Your task to perform on an android device: Open calendar and show me the second week of next month Image 0: 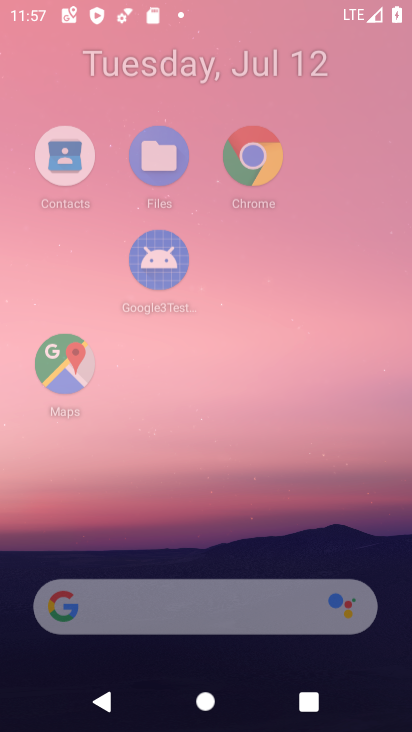
Step 0: drag from (236, 586) to (31, 158)
Your task to perform on an android device: Open calendar and show me the second week of next month Image 1: 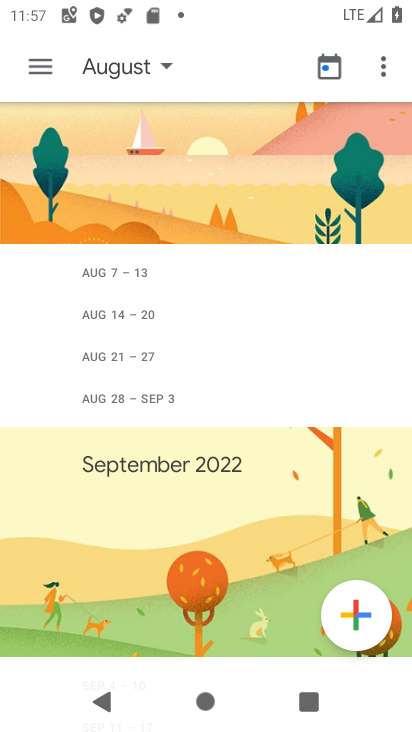
Step 1: press home button
Your task to perform on an android device: Open calendar and show me the second week of next month Image 2: 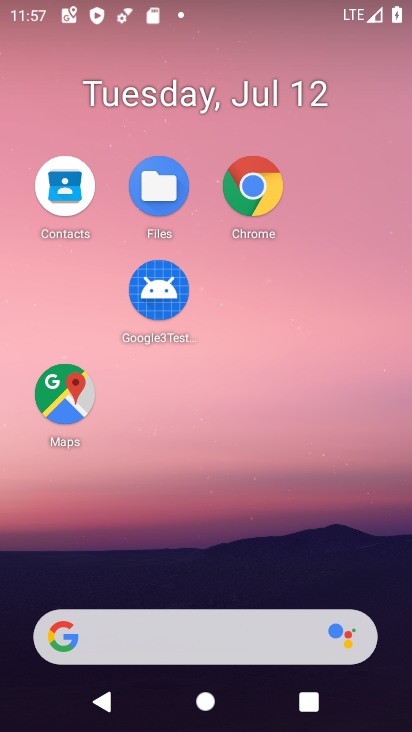
Step 2: drag from (59, 237) to (82, 121)
Your task to perform on an android device: Open calendar and show me the second week of next month Image 3: 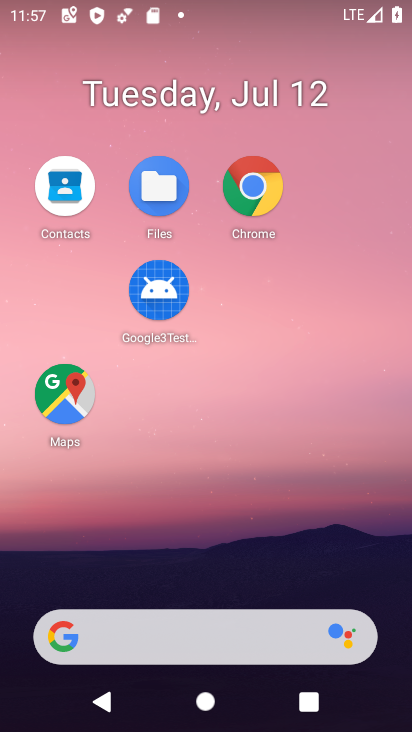
Step 3: drag from (253, 605) to (64, 42)
Your task to perform on an android device: Open calendar and show me the second week of next month Image 4: 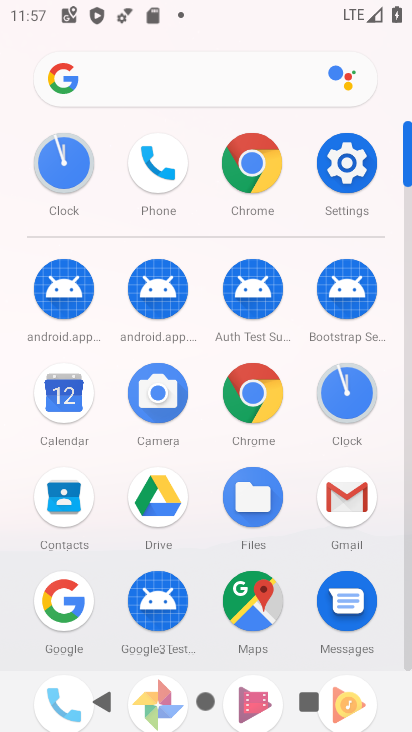
Step 4: click (78, 413)
Your task to perform on an android device: Open calendar and show me the second week of next month Image 5: 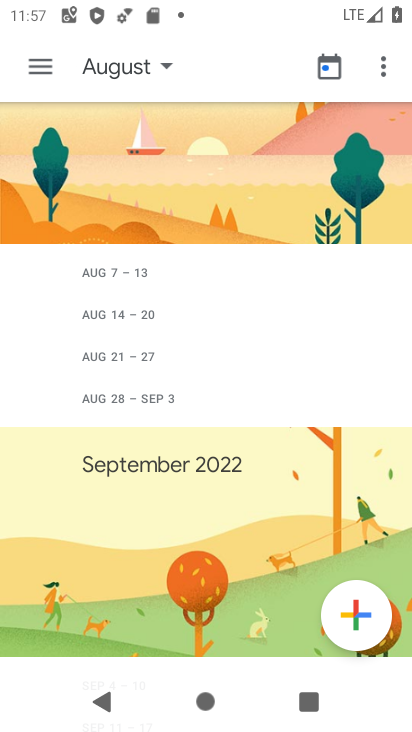
Step 5: click (42, 75)
Your task to perform on an android device: Open calendar and show me the second week of next month Image 6: 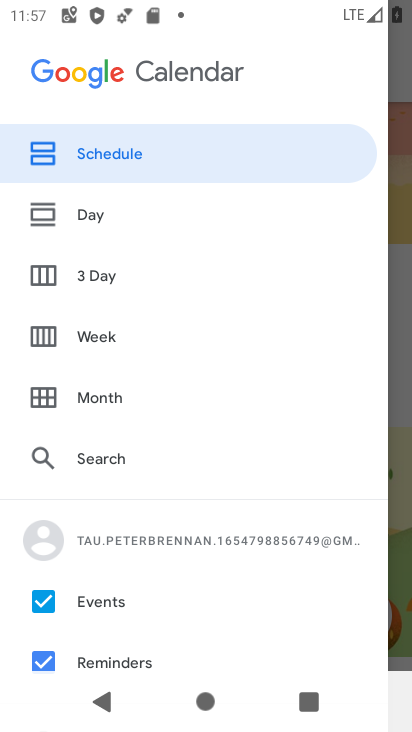
Step 6: click (83, 344)
Your task to perform on an android device: Open calendar and show me the second week of next month Image 7: 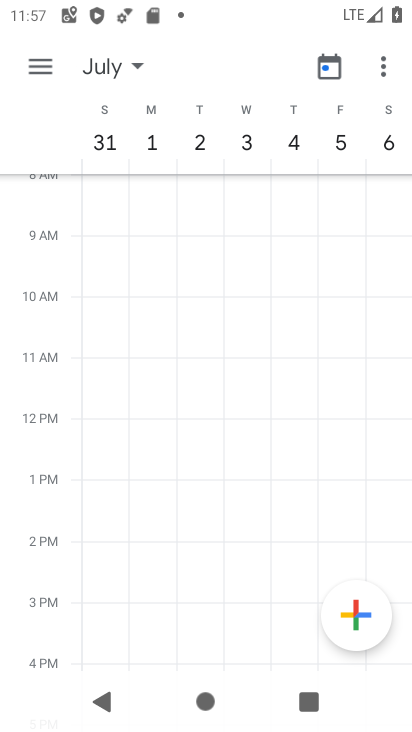
Step 7: task complete